Your task to perform on an android device: change keyboard looks Image 0: 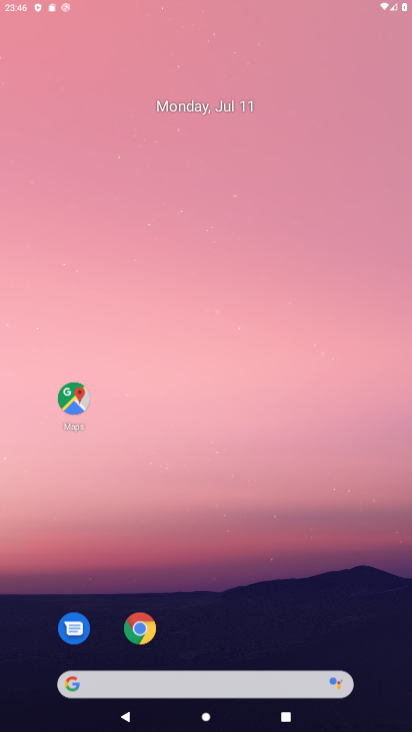
Step 0: press home button
Your task to perform on an android device: change keyboard looks Image 1: 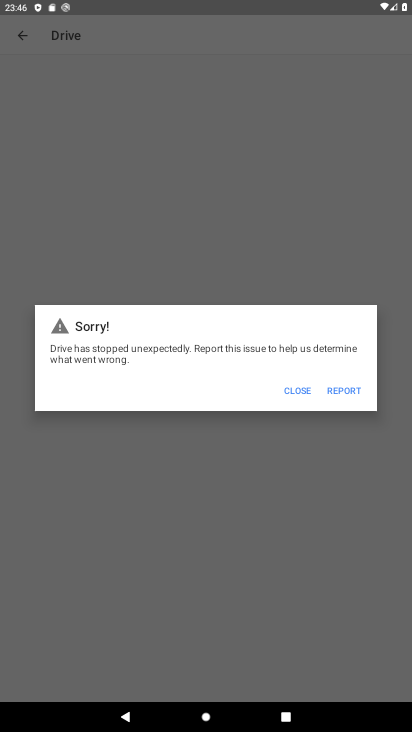
Step 1: drag from (5, 264) to (408, 488)
Your task to perform on an android device: change keyboard looks Image 2: 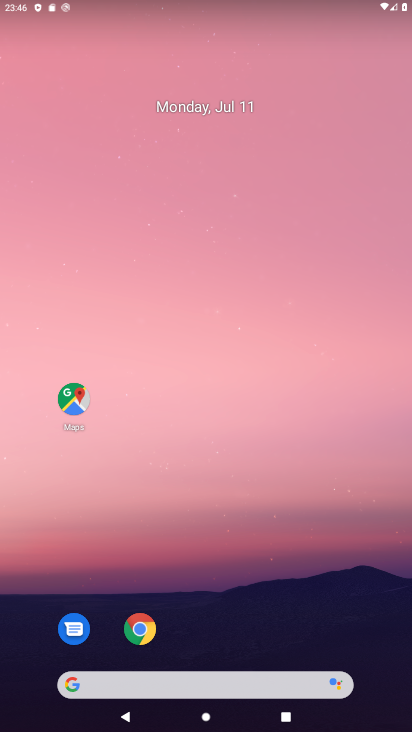
Step 2: drag from (318, 609) to (325, 105)
Your task to perform on an android device: change keyboard looks Image 3: 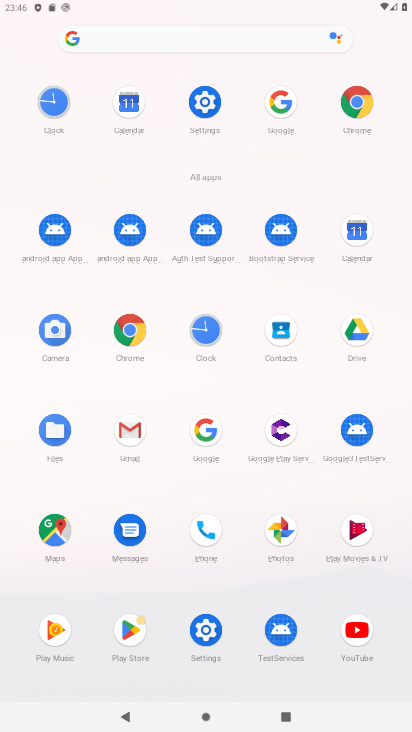
Step 3: click (205, 633)
Your task to perform on an android device: change keyboard looks Image 4: 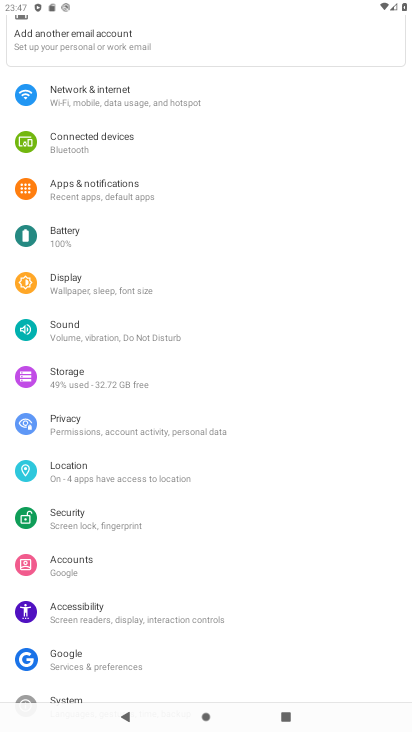
Step 4: drag from (320, 531) to (325, 408)
Your task to perform on an android device: change keyboard looks Image 5: 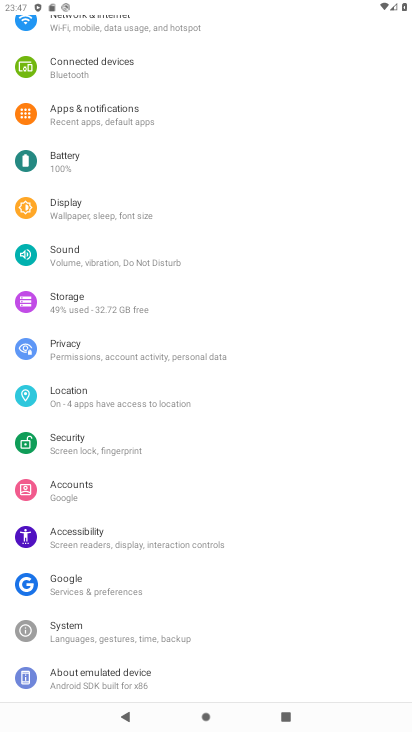
Step 5: drag from (309, 295) to (330, 449)
Your task to perform on an android device: change keyboard looks Image 6: 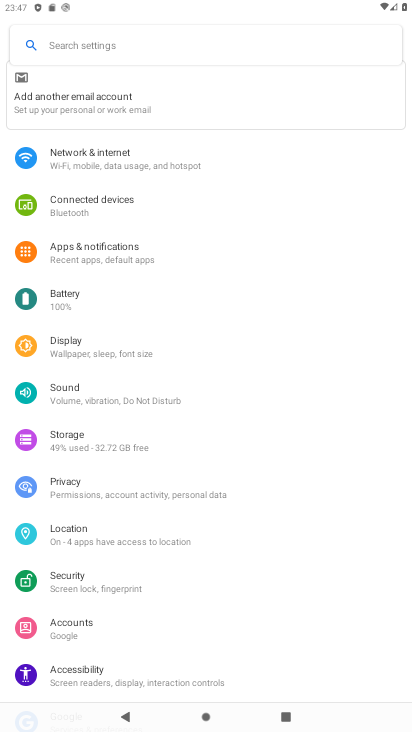
Step 6: drag from (320, 244) to (334, 441)
Your task to perform on an android device: change keyboard looks Image 7: 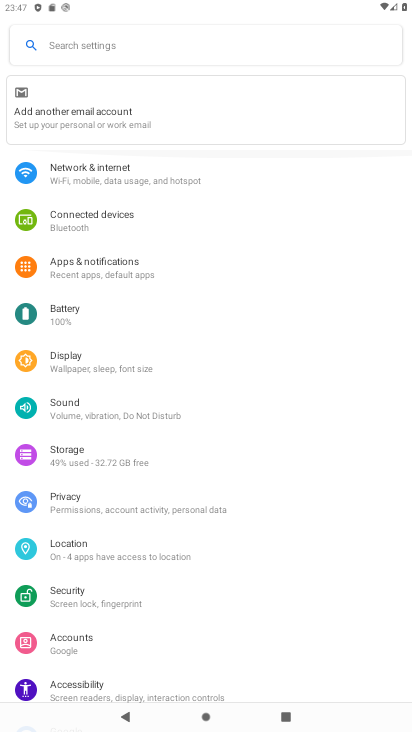
Step 7: drag from (318, 530) to (317, 382)
Your task to perform on an android device: change keyboard looks Image 8: 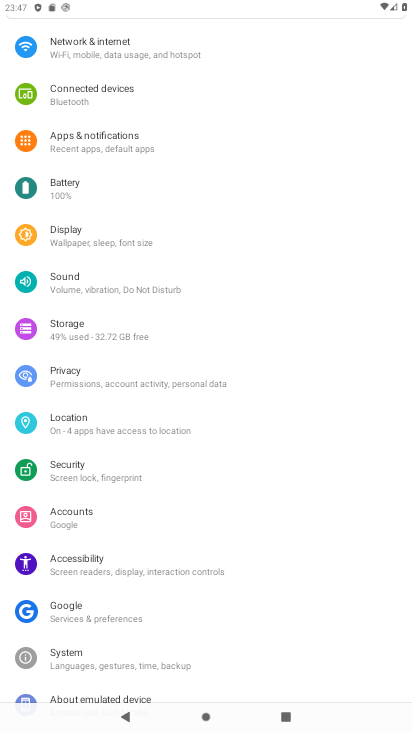
Step 8: drag from (312, 483) to (312, 368)
Your task to perform on an android device: change keyboard looks Image 9: 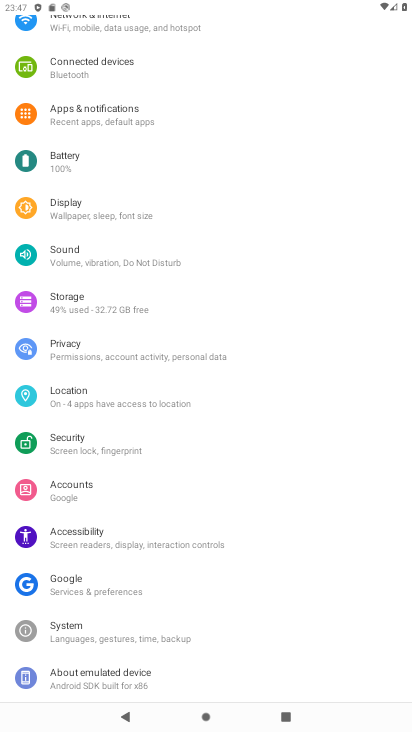
Step 9: click (133, 629)
Your task to perform on an android device: change keyboard looks Image 10: 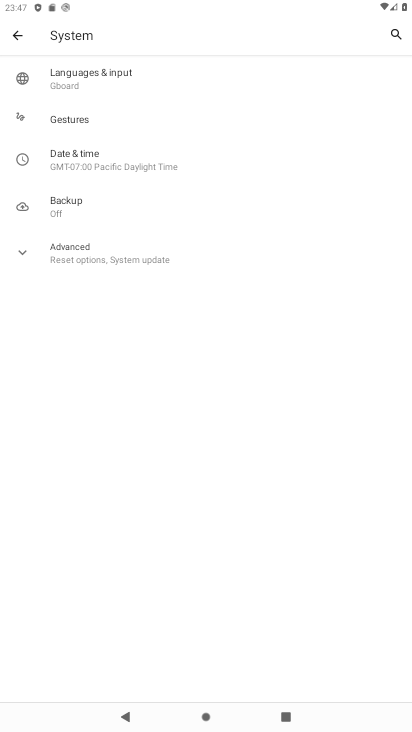
Step 10: click (94, 80)
Your task to perform on an android device: change keyboard looks Image 11: 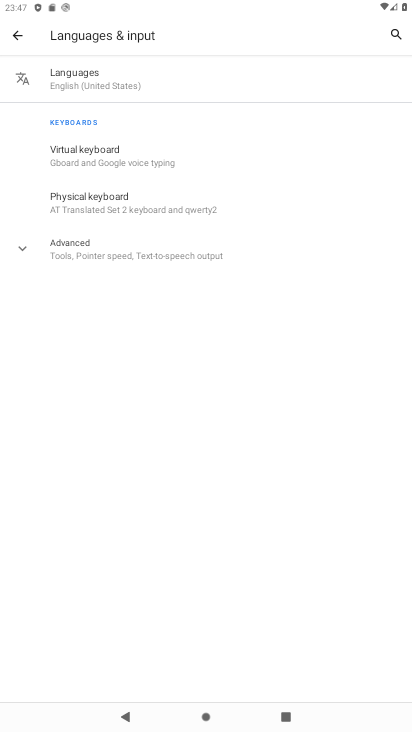
Step 11: click (107, 154)
Your task to perform on an android device: change keyboard looks Image 12: 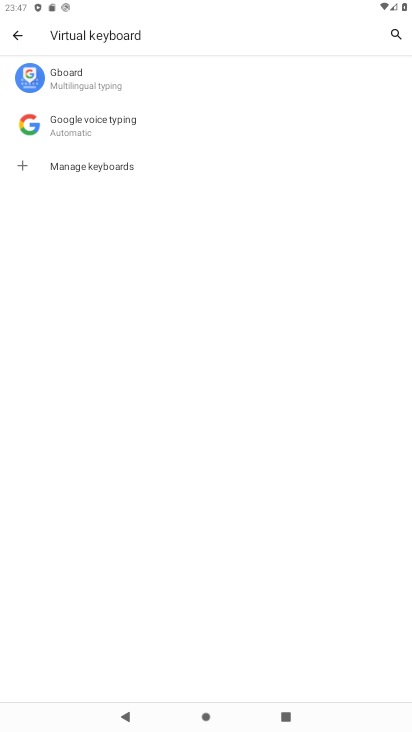
Step 12: click (104, 78)
Your task to perform on an android device: change keyboard looks Image 13: 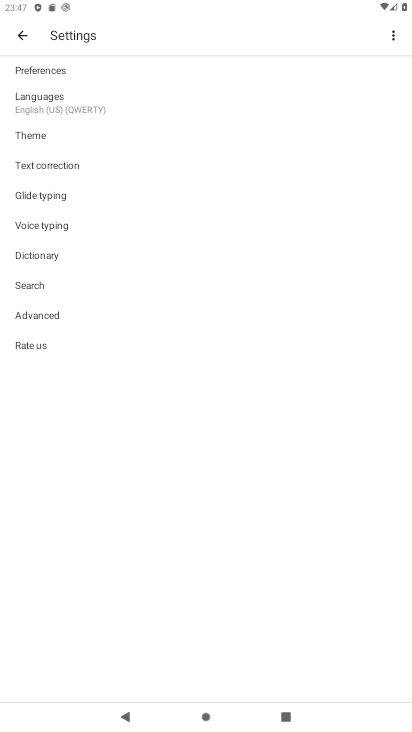
Step 13: click (58, 128)
Your task to perform on an android device: change keyboard looks Image 14: 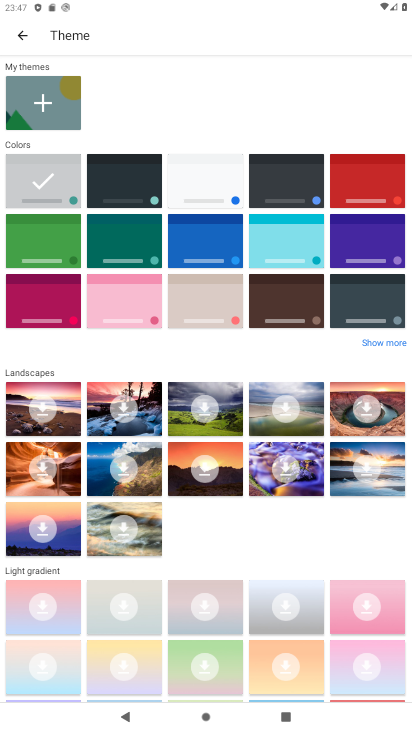
Step 14: click (131, 241)
Your task to perform on an android device: change keyboard looks Image 15: 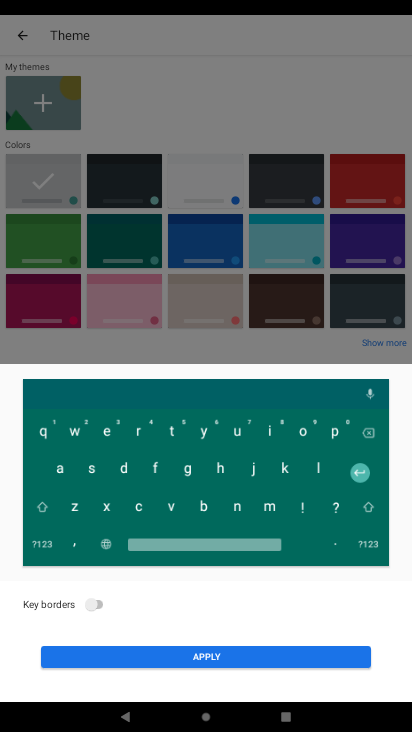
Step 15: click (210, 655)
Your task to perform on an android device: change keyboard looks Image 16: 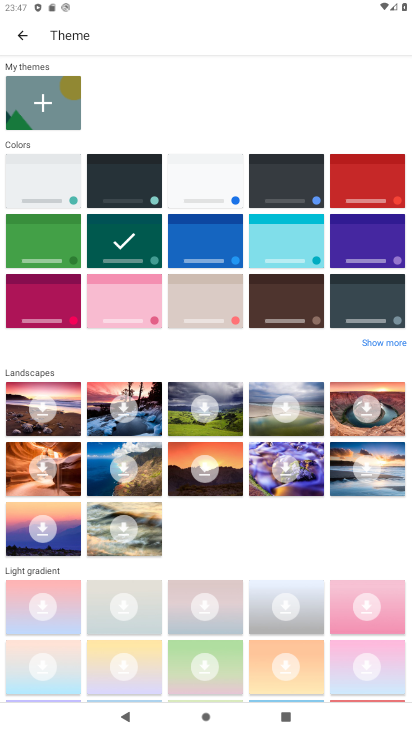
Step 16: task complete